Your task to perform on an android device: open wifi settings Image 0: 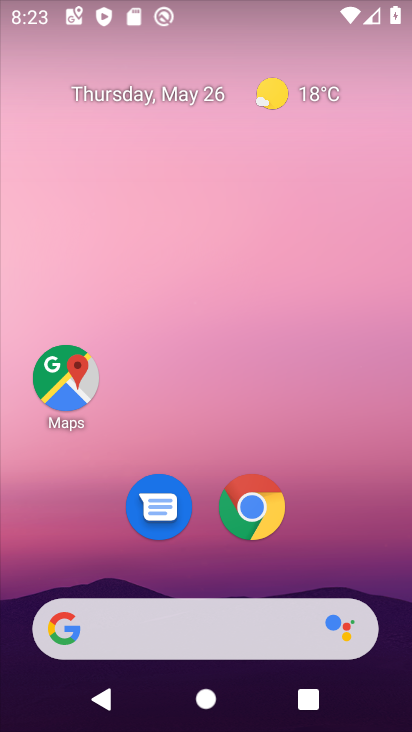
Step 0: press home button
Your task to perform on an android device: open wifi settings Image 1: 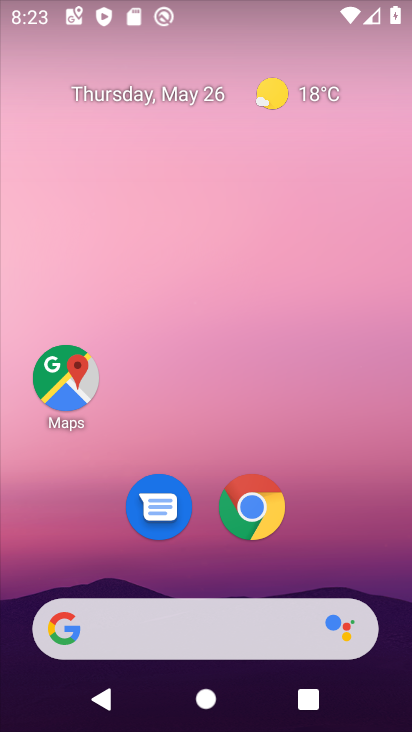
Step 1: drag from (263, 632) to (166, 183)
Your task to perform on an android device: open wifi settings Image 2: 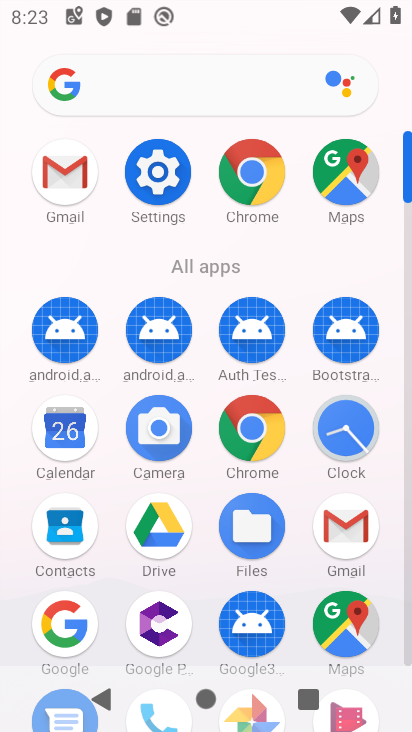
Step 2: click (168, 166)
Your task to perform on an android device: open wifi settings Image 3: 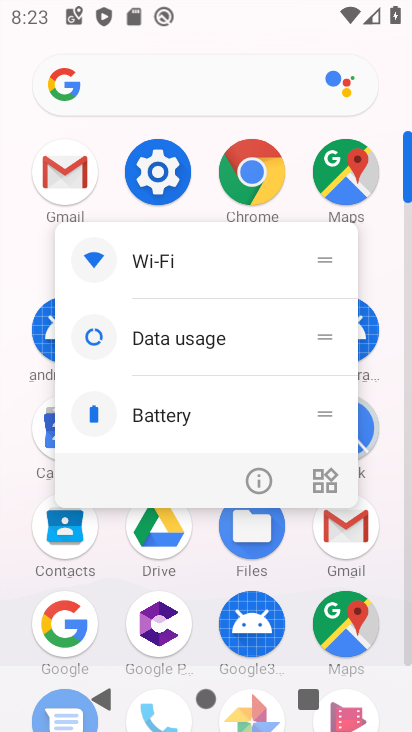
Step 3: click (185, 163)
Your task to perform on an android device: open wifi settings Image 4: 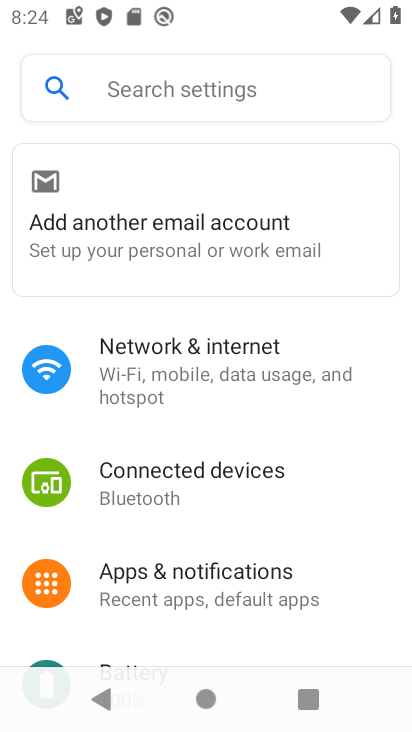
Step 4: click (166, 363)
Your task to perform on an android device: open wifi settings Image 5: 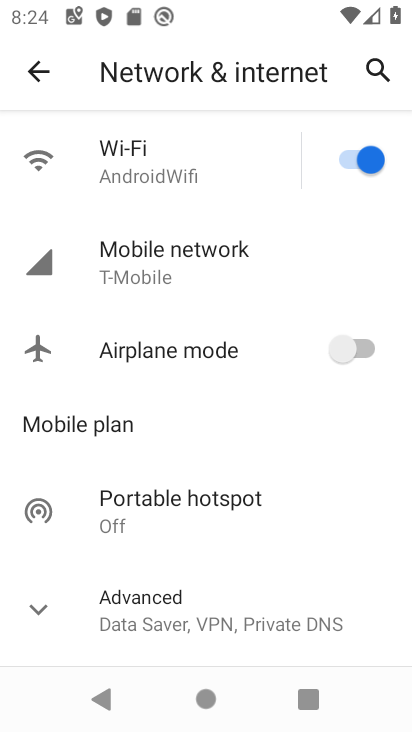
Step 5: click (206, 151)
Your task to perform on an android device: open wifi settings Image 6: 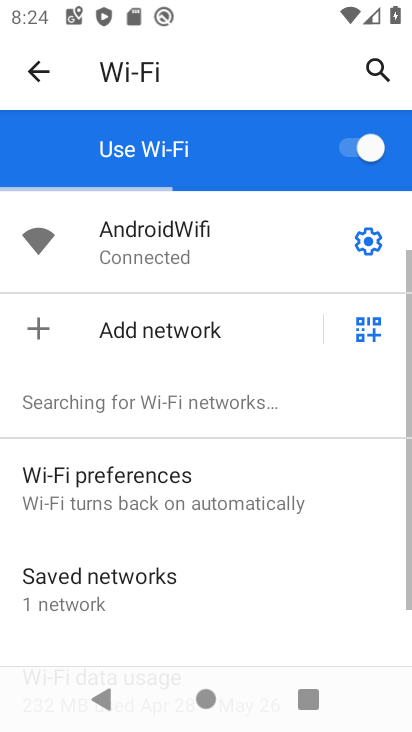
Step 6: task complete